Your task to perform on an android device: turn on airplane mode Image 0: 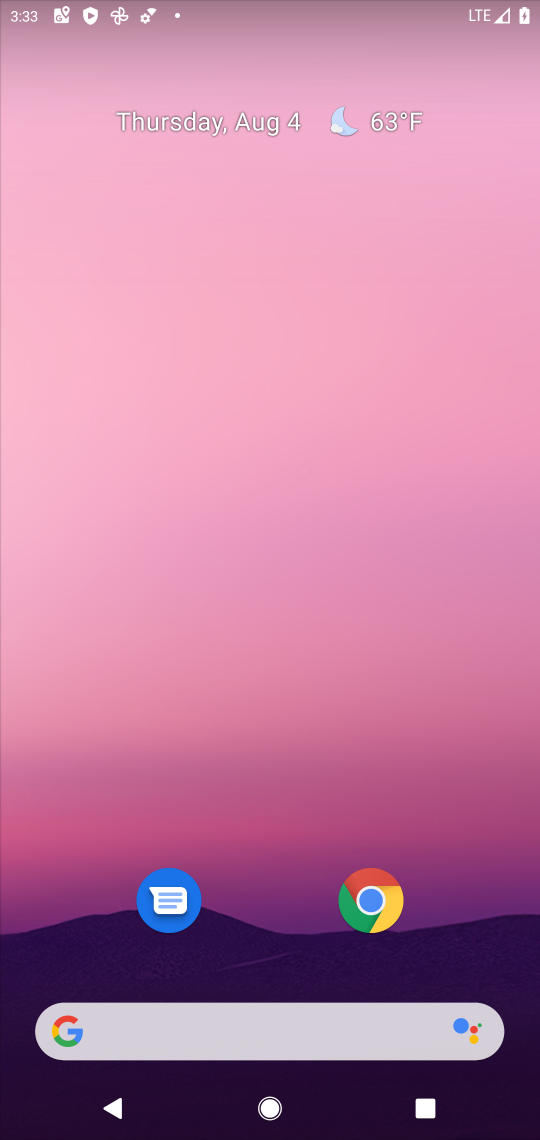
Step 0: drag from (507, 938) to (319, 259)
Your task to perform on an android device: turn on airplane mode Image 1: 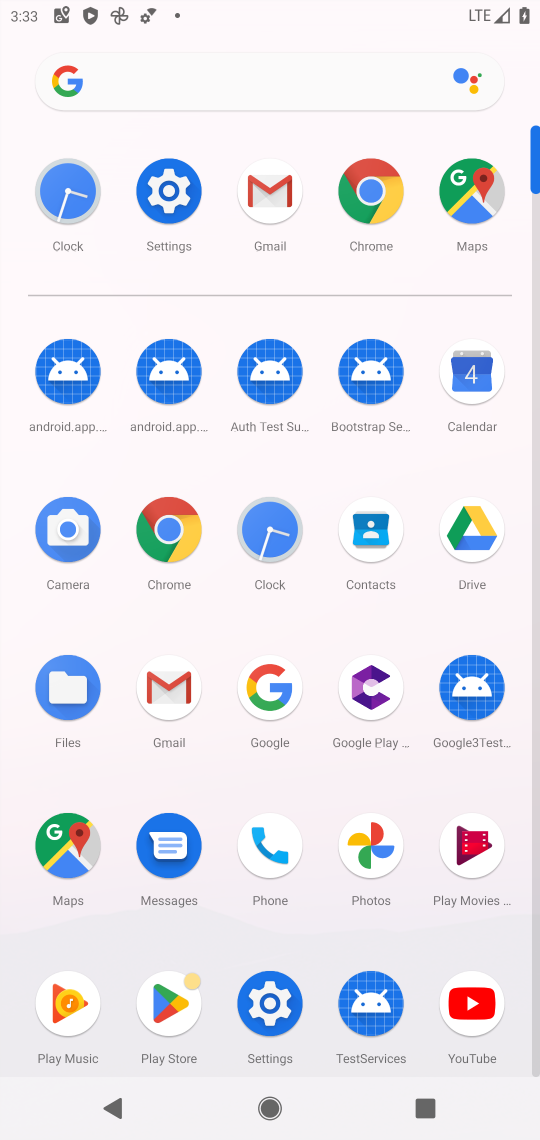
Step 1: click (165, 206)
Your task to perform on an android device: turn on airplane mode Image 2: 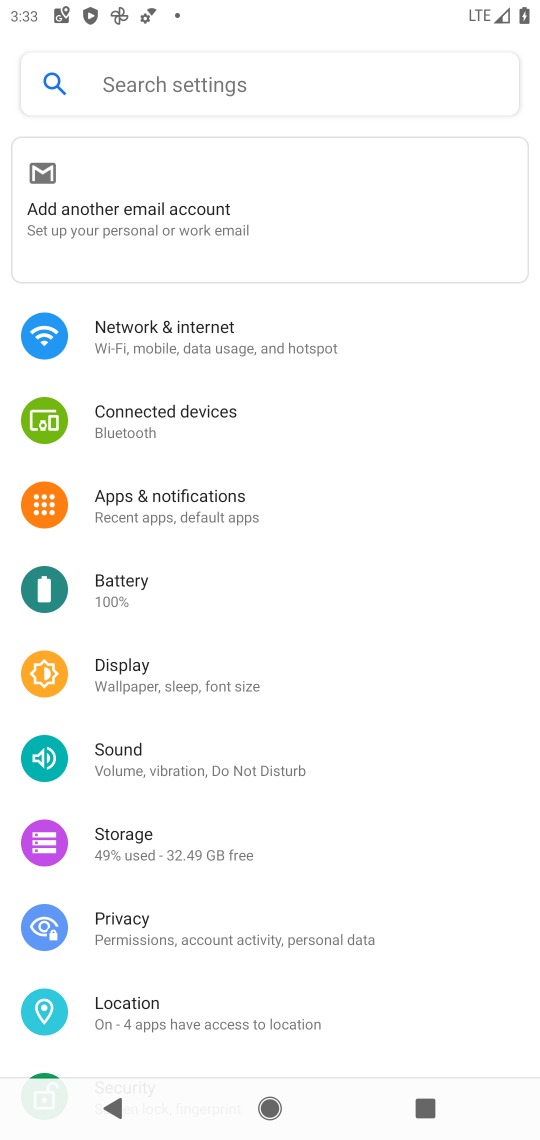
Step 2: click (207, 321)
Your task to perform on an android device: turn on airplane mode Image 3: 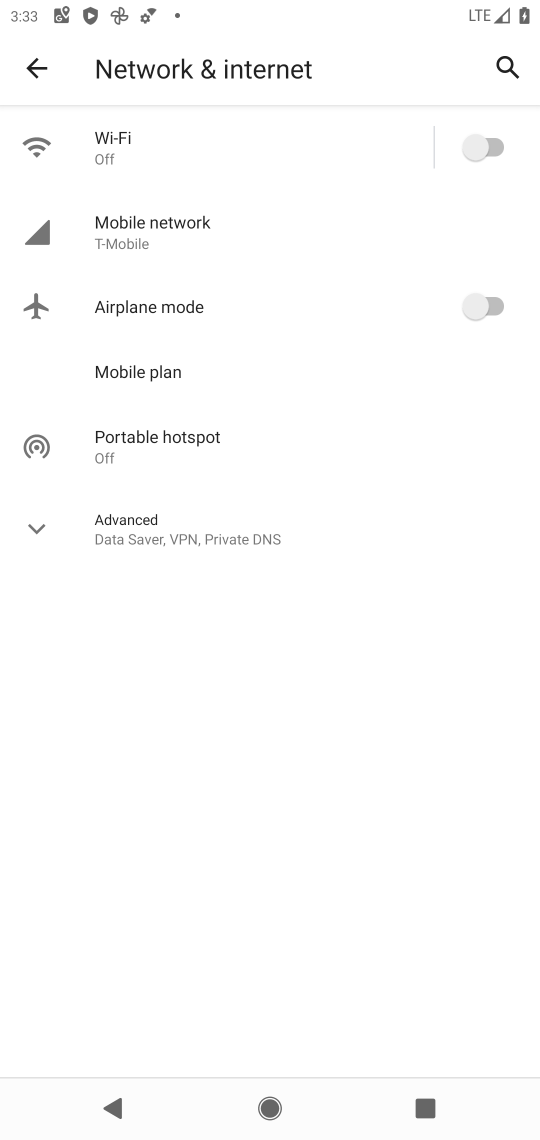
Step 3: click (497, 319)
Your task to perform on an android device: turn on airplane mode Image 4: 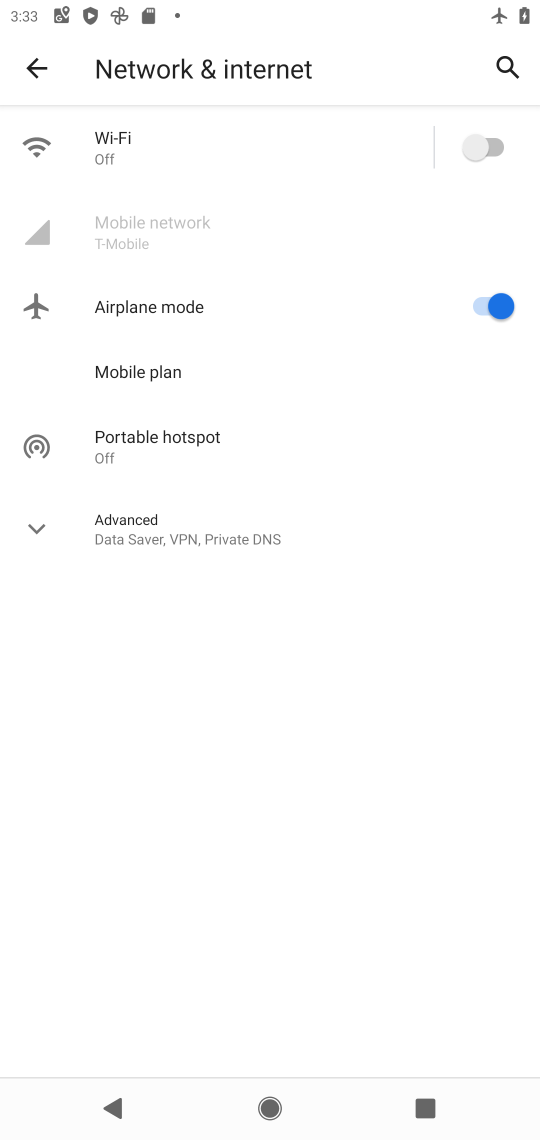
Step 4: task complete